Your task to perform on an android device: Open wifi settings Image 0: 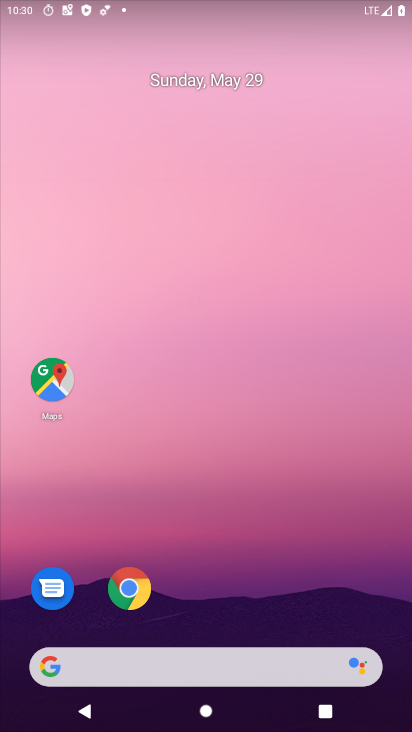
Step 0: drag from (229, 644) to (240, 154)
Your task to perform on an android device: Open wifi settings Image 1: 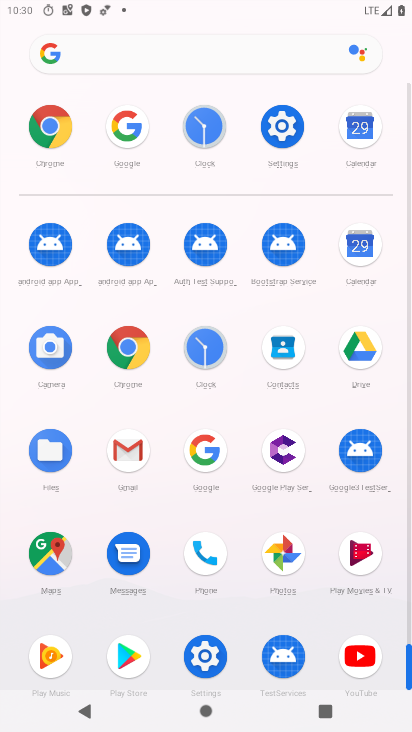
Step 1: click (220, 653)
Your task to perform on an android device: Open wifi settings Image 2: 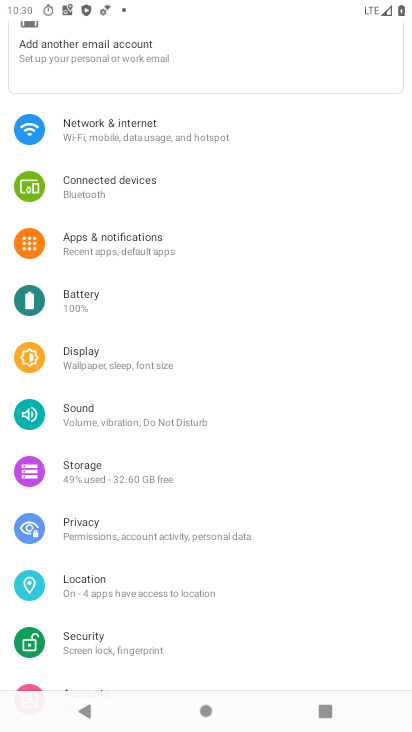
Step 2: click (205, 147)
Your task to perform on an android device: Open wifi settings Image 3: 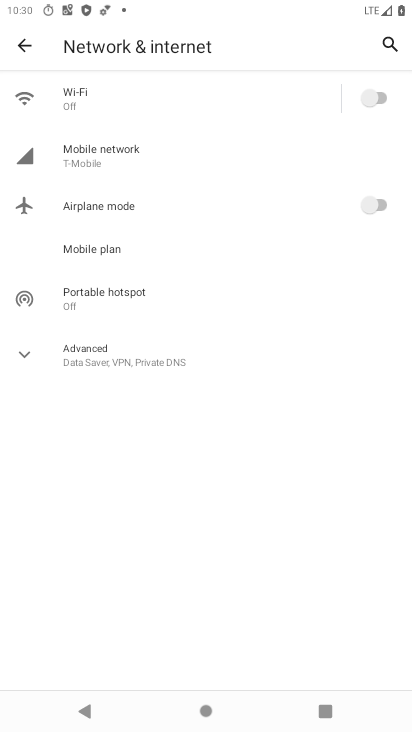
Step 3: click (181, 113)
Your task to perform on an android device: Open wifi settings Image 4: 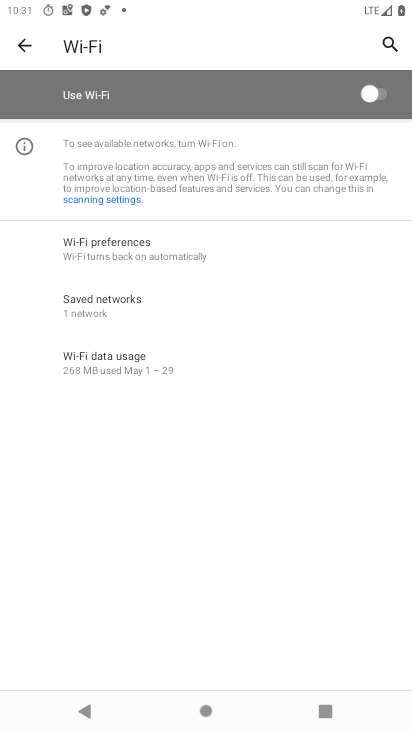
Step 4: task complete